Your task to perform on an android device: snooze an email in the gmail app Image 0: 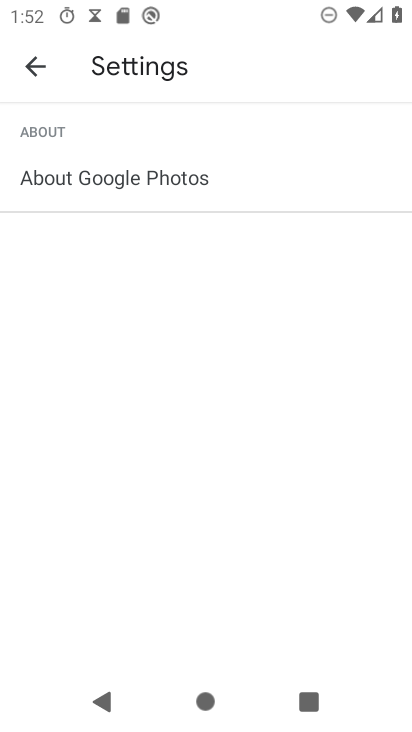
Step 0: press home button
Your task to perform on an android device: snooze an email in the gmail app Image 1: 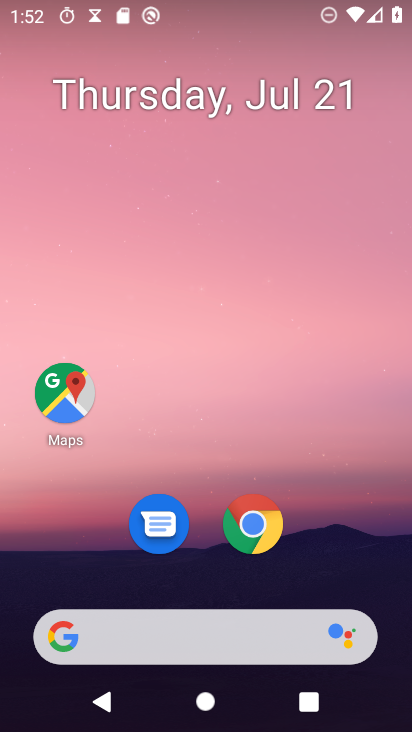
Step 1: drag from (218, 630) to (242, 108)
Your task to perform on an android device: snooze an email in the gmail app Image 2: 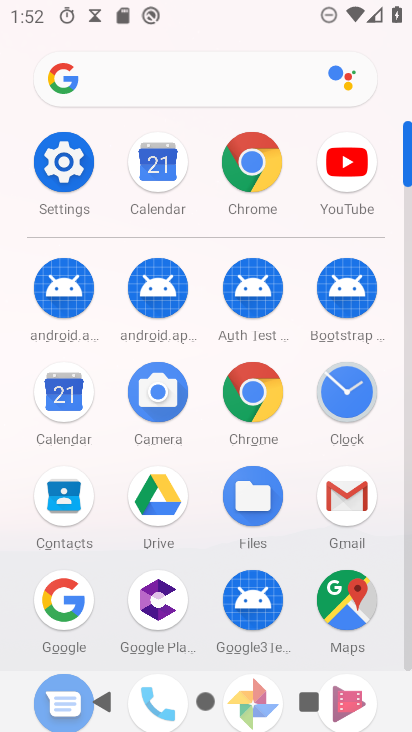
Step 2: click (334, 502)
Your task to perform on an android device: snooze an email in the gmail app Image 3: 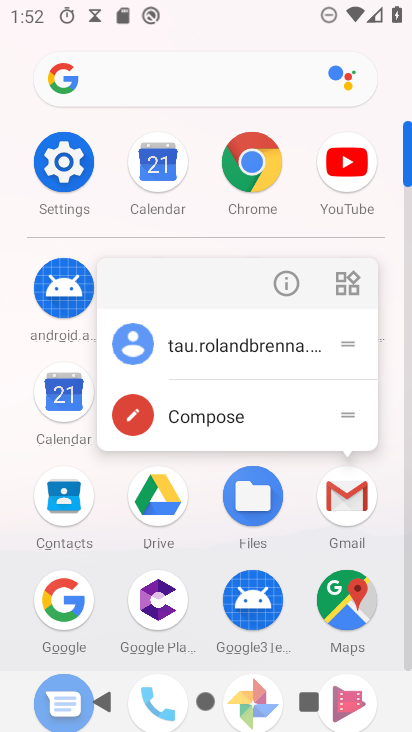
Step 3: click (347, 499)
Your task to perform on an android device: snooze an email in the gmail app Image 4: 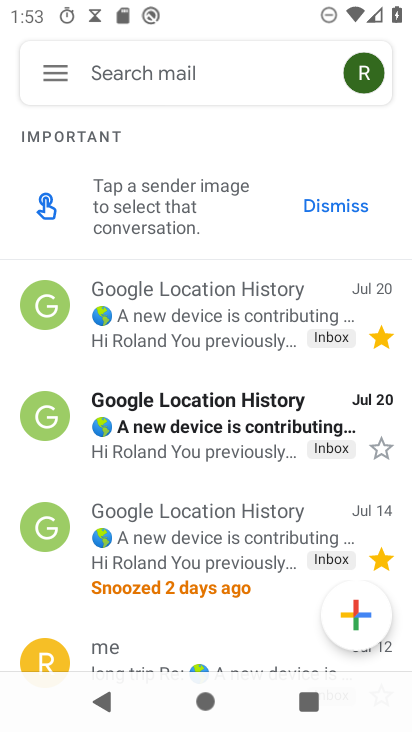
Step 4: click (51, 304)
Your task to perform on an android device: snooze an email in the gmail app Image 5: 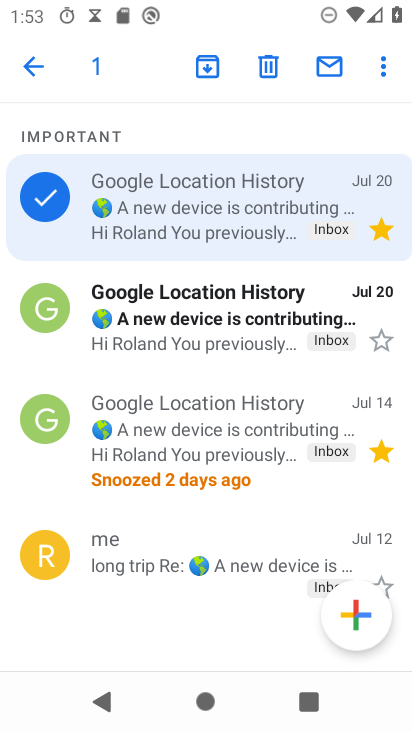
Step 5: click (383, 78)
Your task to perform on an android device: snooze an email in the gmail app Image 6: 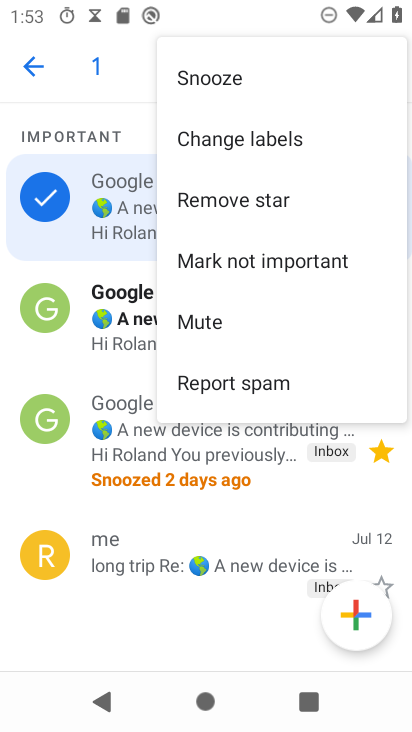
Step 6: click (235, 75)
Your task to perform on an android device: snooze an email in the gmail app Image 7: 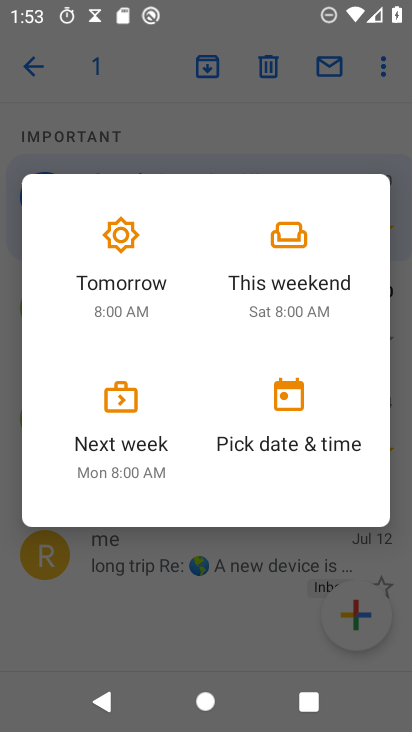
Step 7: click (141, 285)
Your task to perform on an android device: snooze an email in the gmail app Image 8: 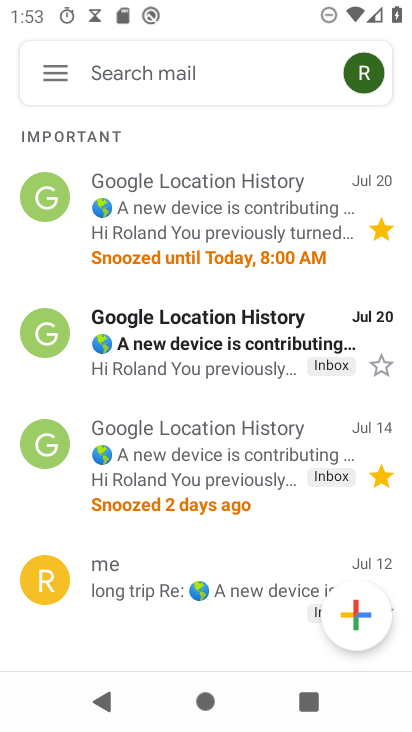
Step 8: task complete